Your task to perform on an android device: delete a single message in the gmail app Image 0: 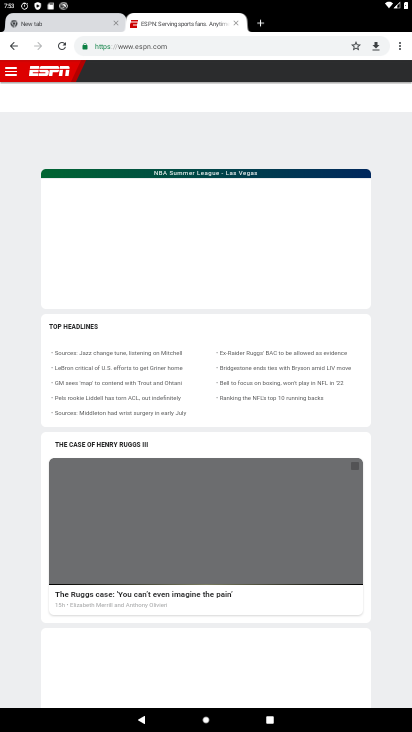
Step 0: press home button
Your task to perform on an android device: delete a single message in the gmail app Image 1: 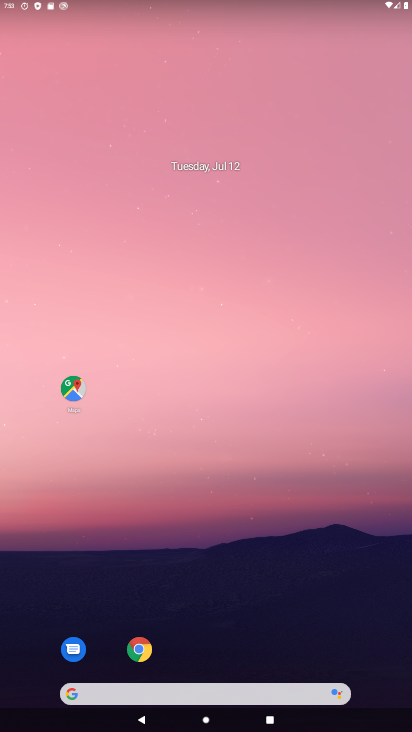
Step 1: drag from (361, 651) to (215, 160)
Your task to perform on an android device: delete a single message in the gmail app Image 2: 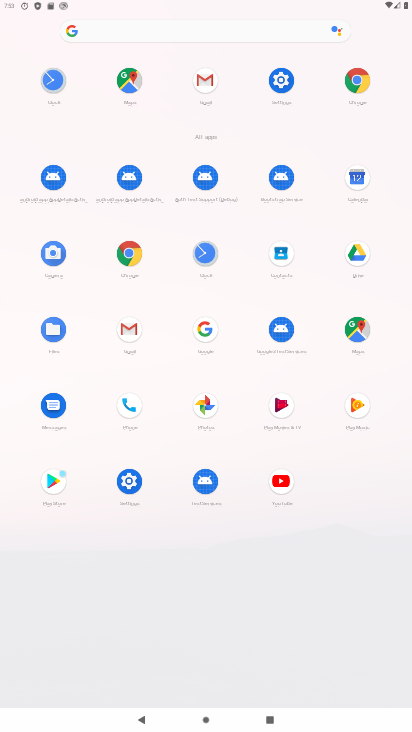
Step 2: click (204, 79)
Your task to perform on an android device: delete a single message in the gmail app Image 3: 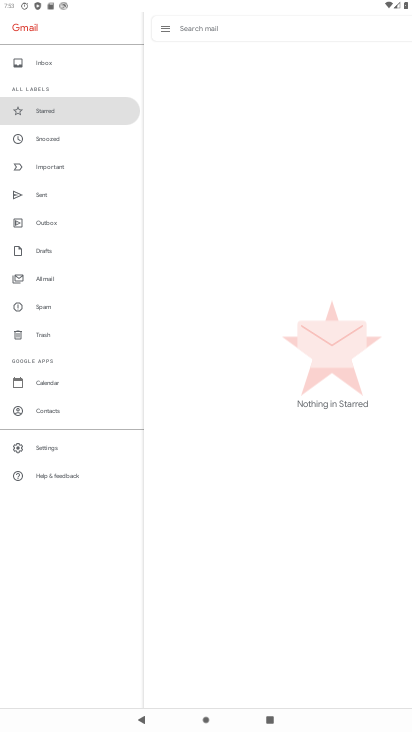
Step 3: click (50, 59)
Your task to perform on an android device: delete a single message in the gmail app Image 4: 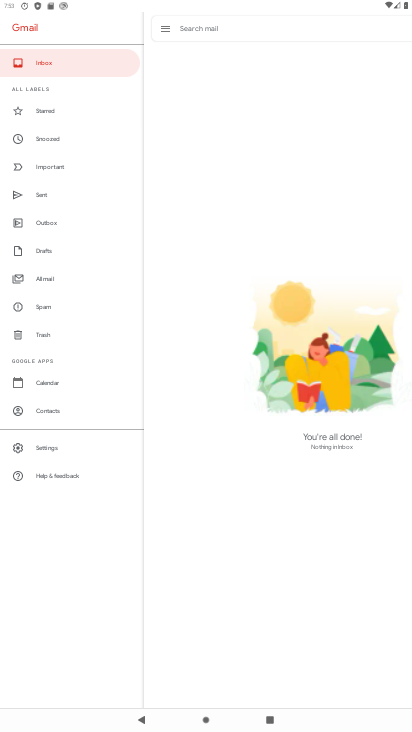
Step 4: click (40, 283)
Your task to perform on an android device: delete a single message in the gmail app Image 5: 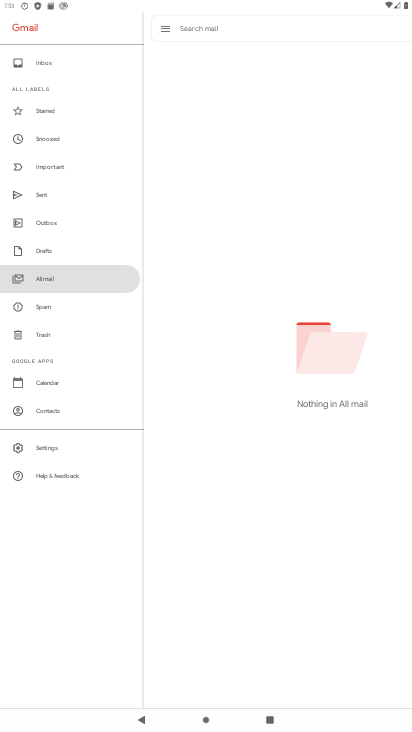
Step 5: task complete